Your task to perform on an android device: change alarm snooze length Image 0: 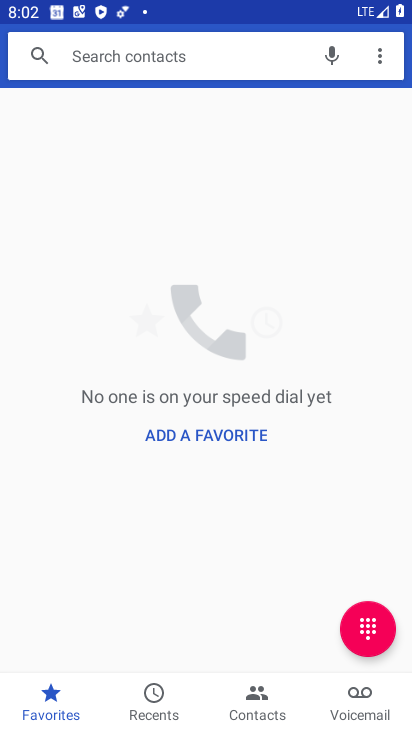
Step 0: press home button
Your task to perform on an android device: change alarm snooze length Image 1: 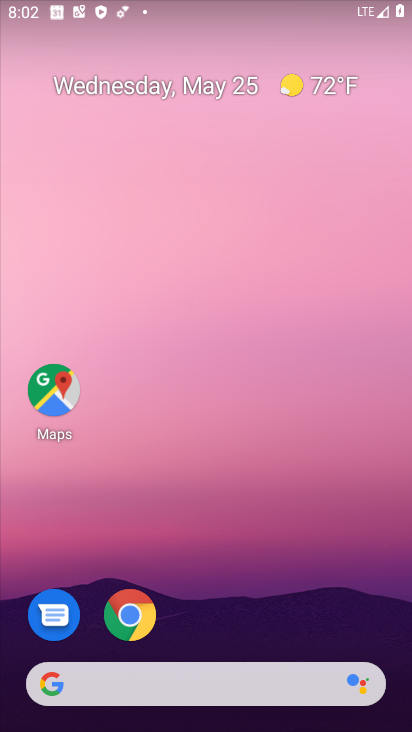
Step 1: drag from (263, 518) to (294, 42)
Your task to perform on an android device: change alarm snooze length Image 2: 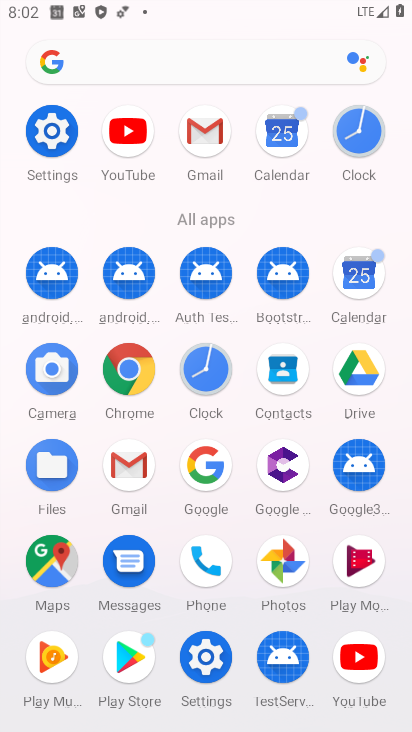
Step 2: click (361, 124)
Your task to perform on an android device: change alarm snooze length Image 3: 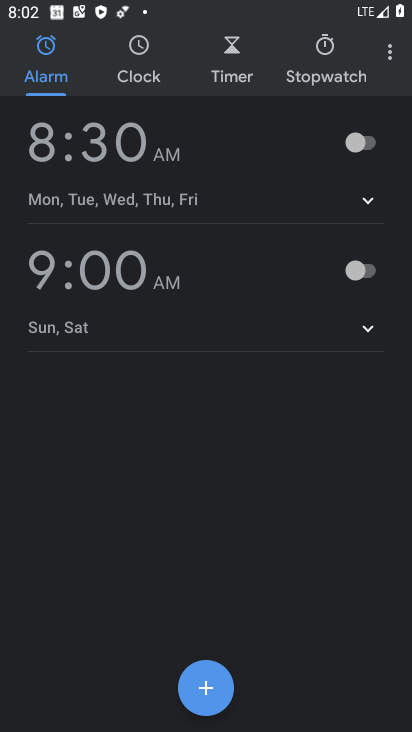
Step 3: click (394, 58)
Your task to perform on an android device: change alarm snooze length Image 4: 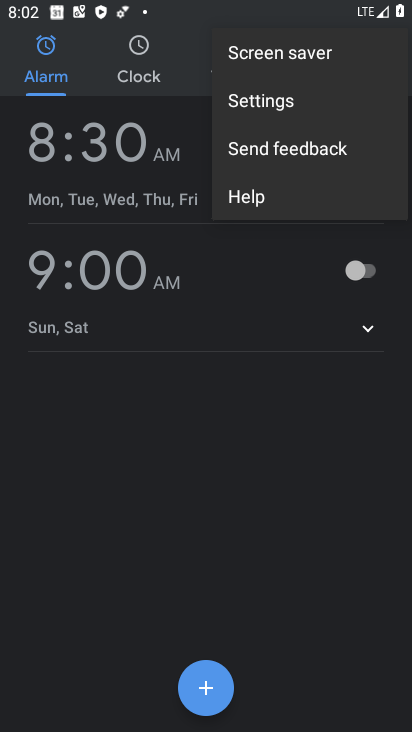
Step 4: click (323, 99)
Your task to perform on an android device: change alarm snooze length Image 5: 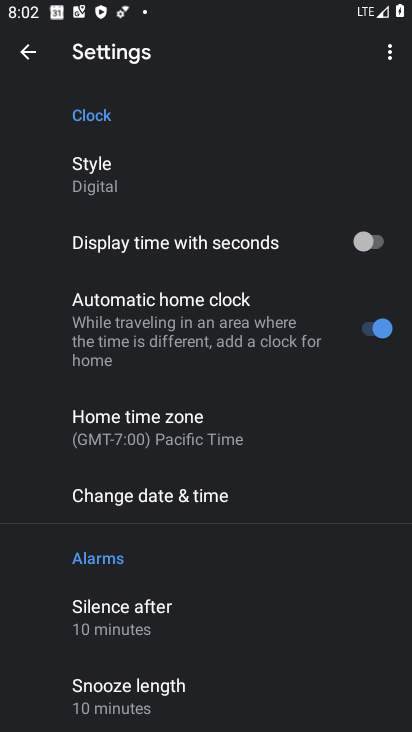
Step 5: click (180, 700)
Your task to perform on an android device: change alarm snooze length Image 6: 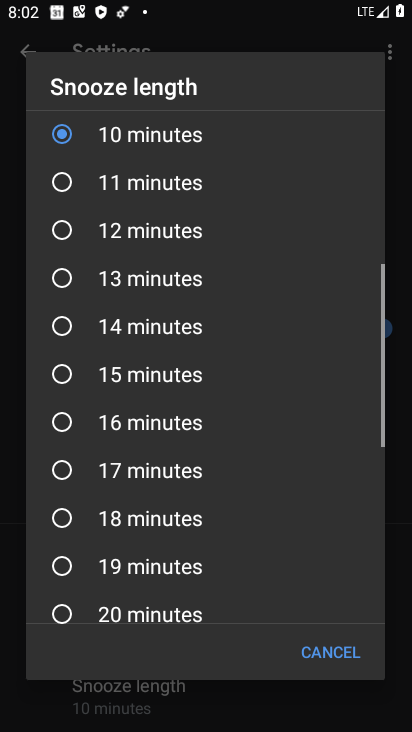
Step 6: click (141, 238)
Your task to perform on an android device: change alarm snooze length Image 7: 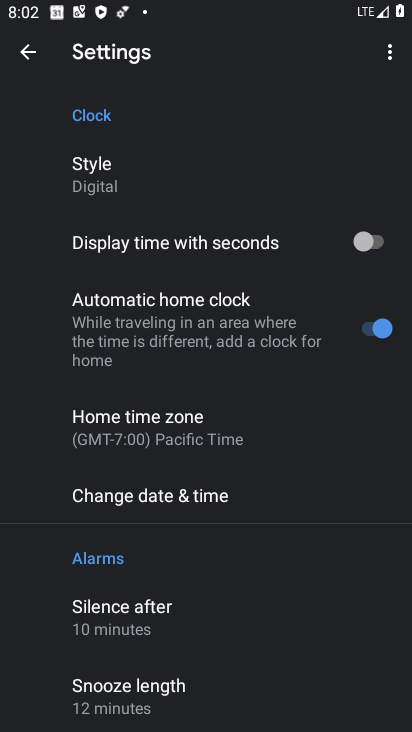
Step 7: task complete